Your task to perform on an android device: delete a single message in the gmail app Image 0: 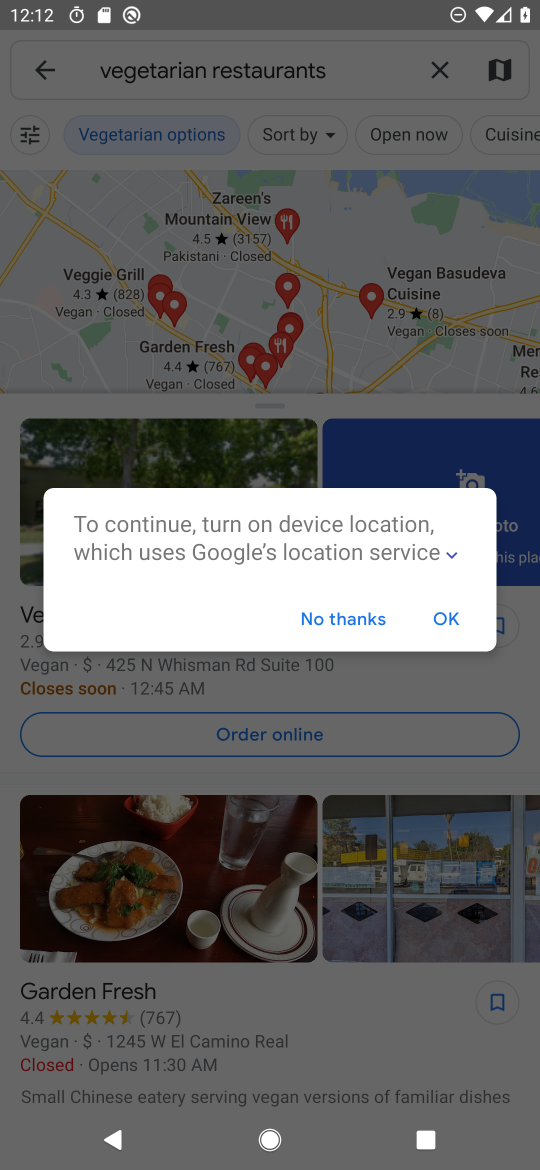
Step 0: press home button
Your task to perform on an android device: delete a single message in the gmail app Image 1: 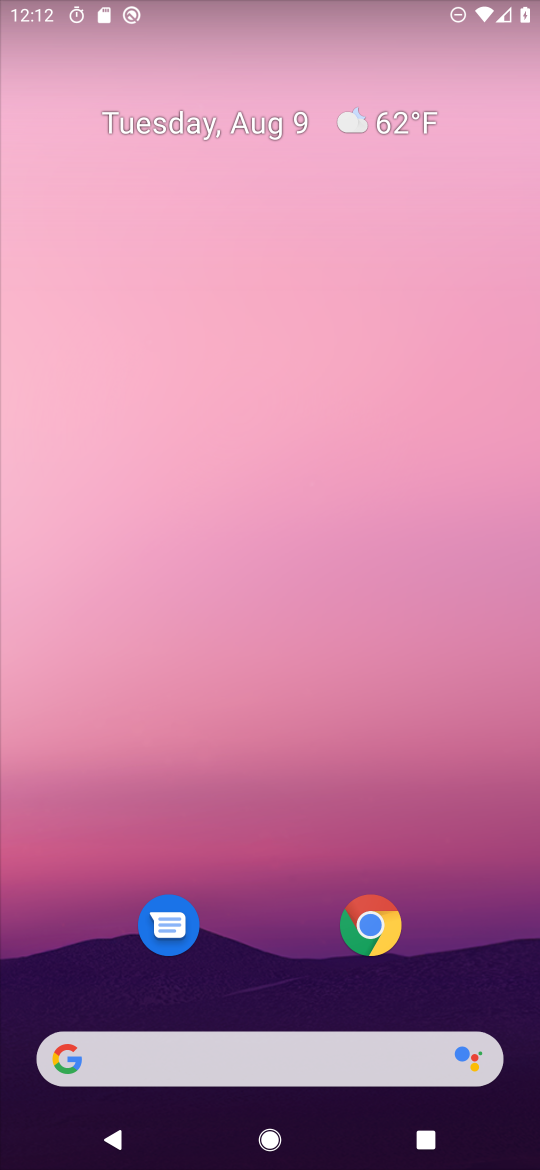
Step 1: drag from (256, 937) to (352, 260)
Your task to perform on an android device: delete a single message in the gmail app Image 2: 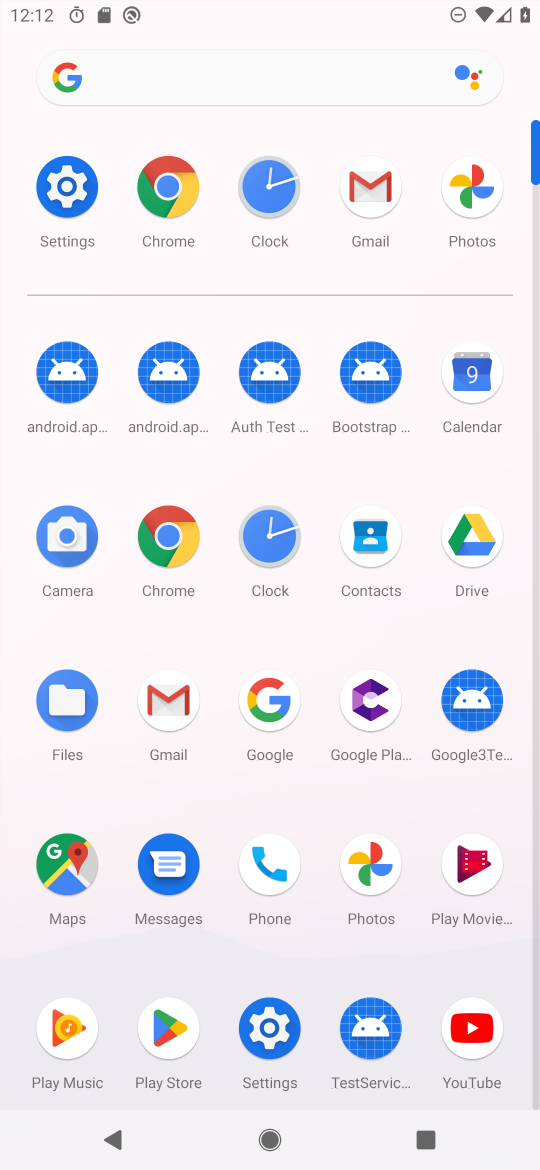
Step 2: click (162, 716)
Your task to perform on an android device: delete a single message in the gmail app Image 3: 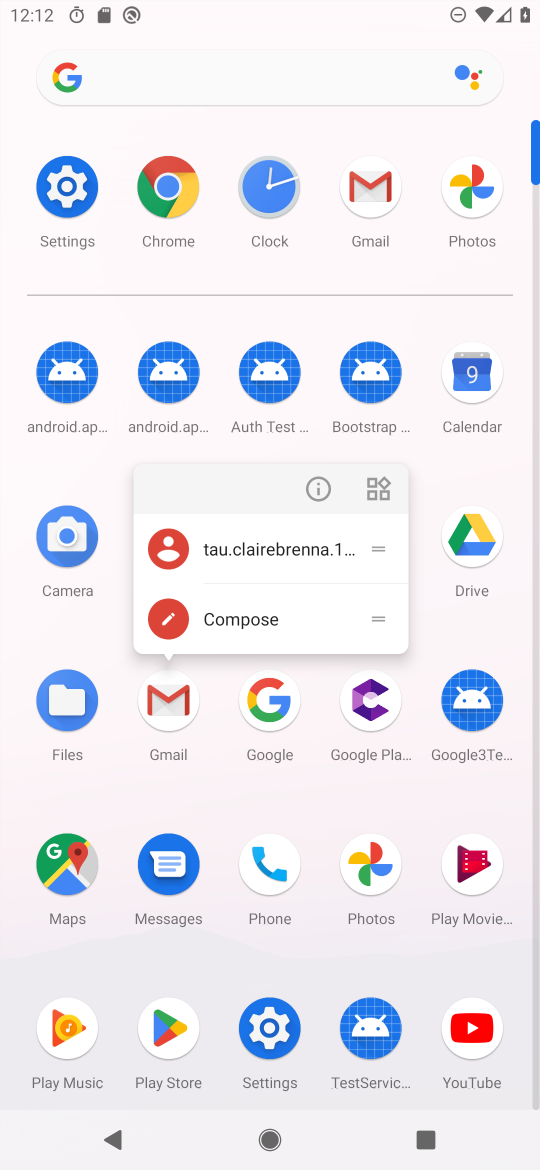
Step 3: click (171, 715)
Your task to perform on an android device: delete a single message in the gmail app Image 4: 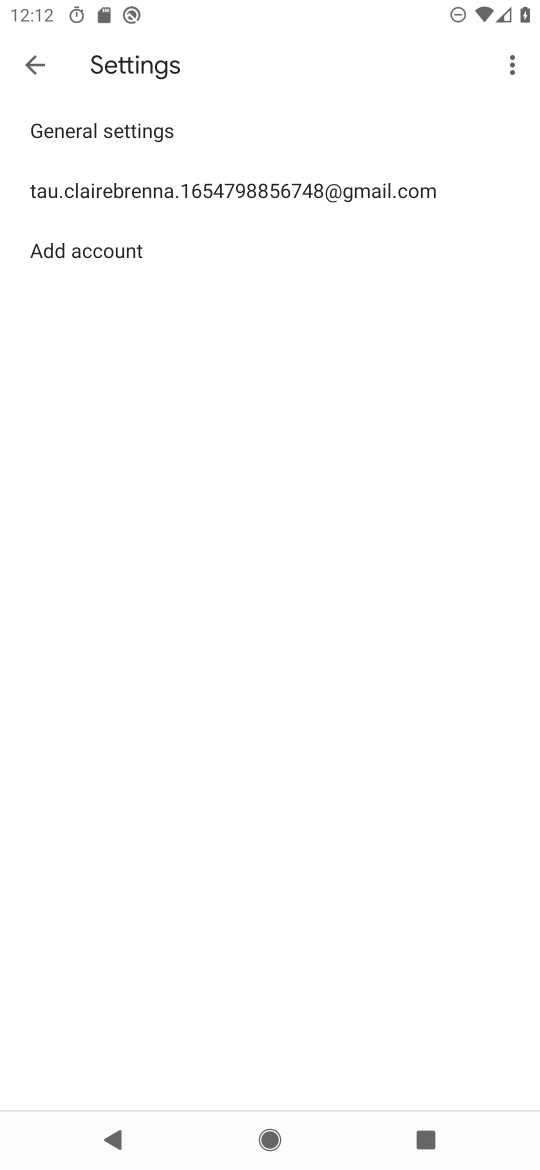
Step 4: click (45, 72)
Your task to perform on an android device: delete a single message in the gmail app Image 5: 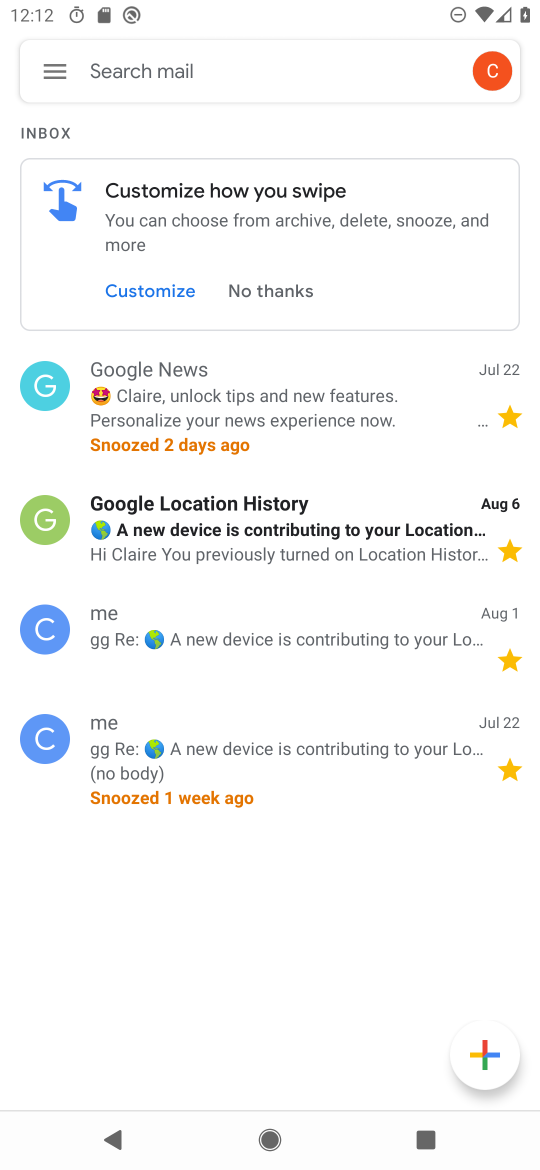
Step 5: click (56, 72)
Your task to perform on an android device: delete a single message in the gmail app Image 6: 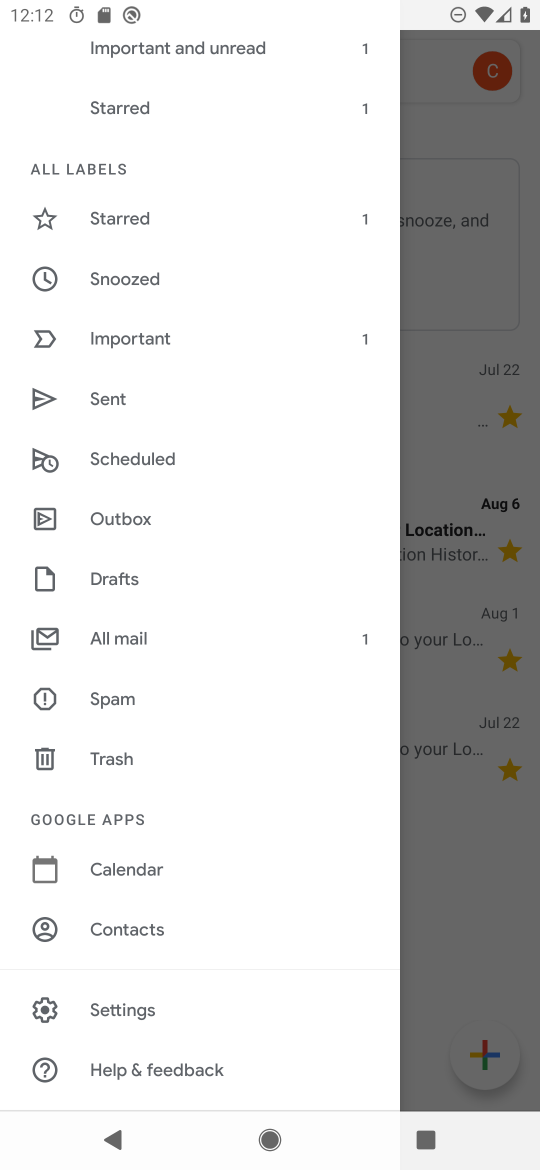
Step 6: click (484, 427)
Your task to perform on an android device: delete a single message in the gmail app Image 7: 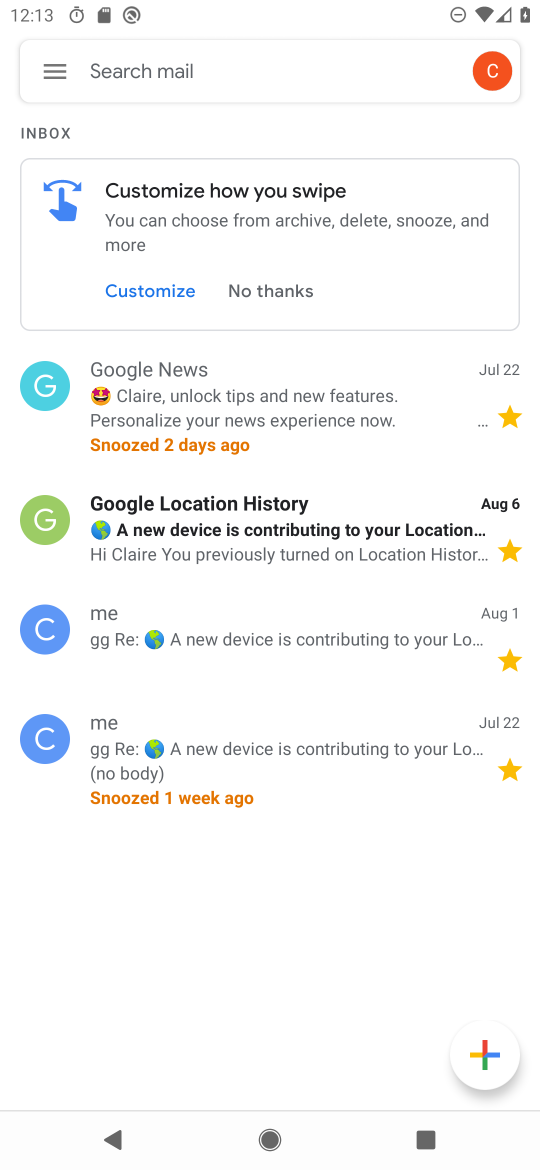
Step 7: click (201, 777)
Your task to perform on an android device: delete a single message in the gmail app Image 8: 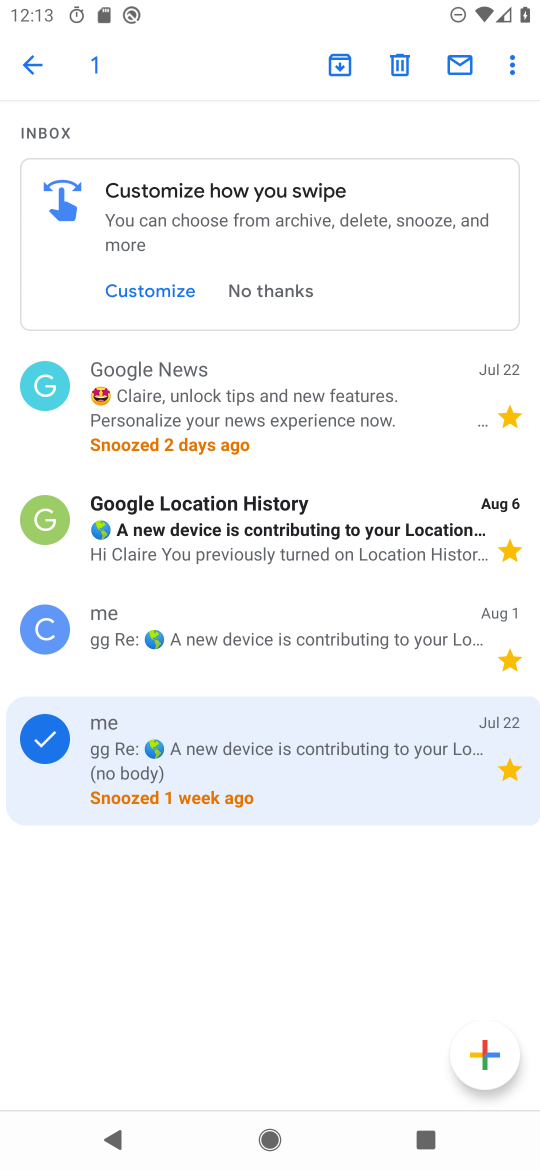
Step 8: click (397, 60)
Your task to perform on an android device: delete a single message in the gmail app Image 9: 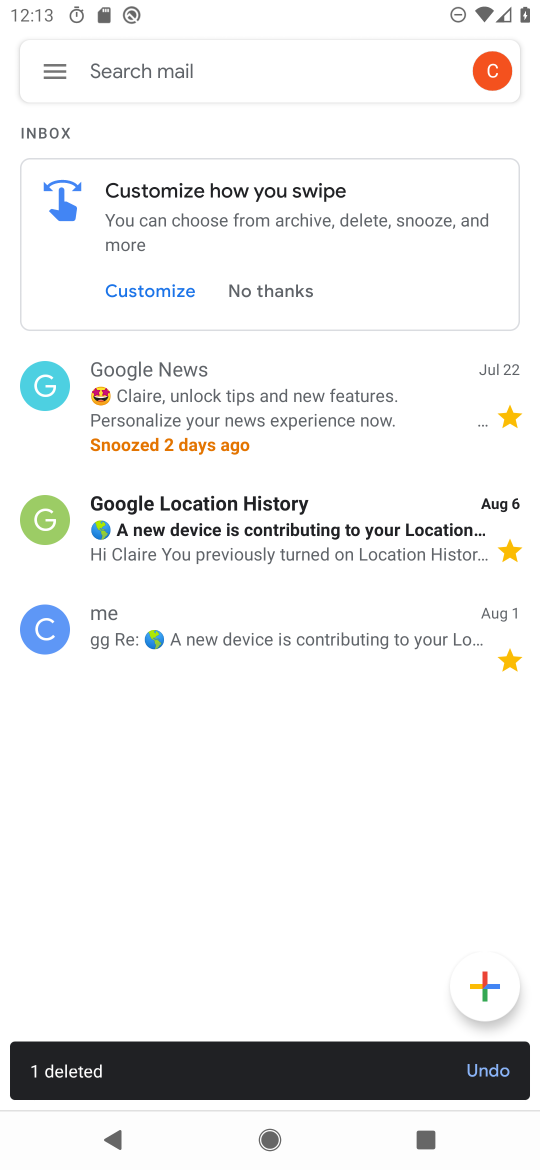
Step 9: task complete